Your task to perform on an android device: change the upload size in google photos Image 0: 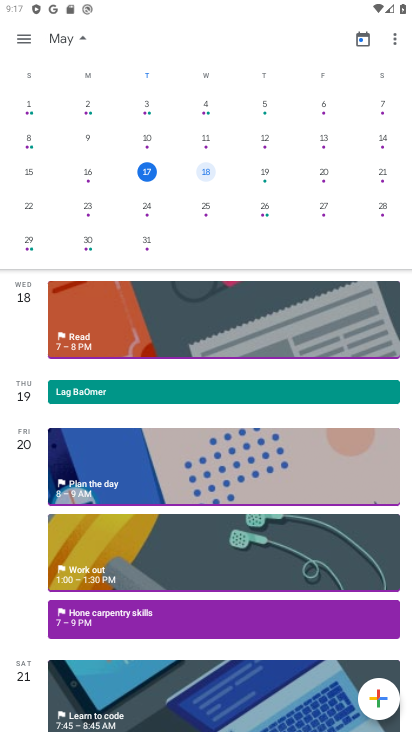
Step 0: press home button
Your task to perform on an android device: change the upload size in google photos Image 1: 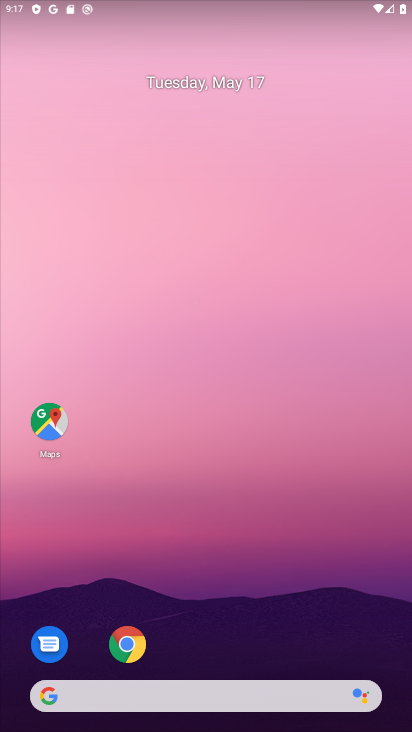
Step 1: drag from (221, 617) to (219, 4)
Your task to perform on an android device: change the upload size in google photos Image 2: 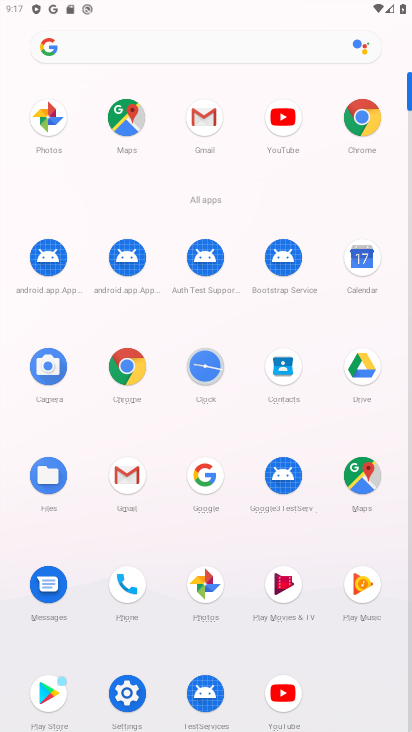
Step 2: click (38, 120)
Your task to perform on an android device: change the upload size in google photos Image 3: 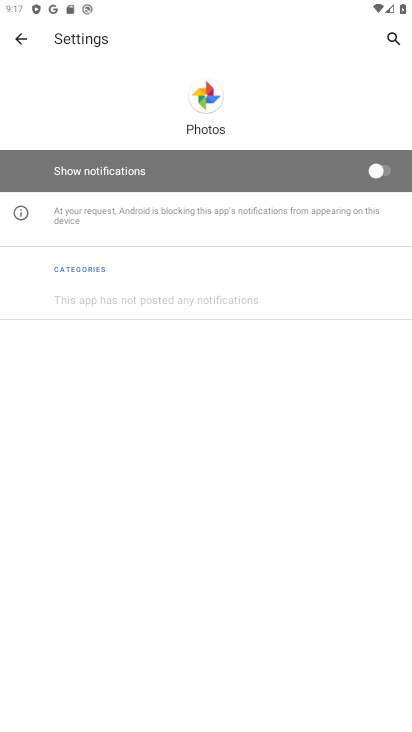
Step 3: click (48, 46)
Your task to perform on an android device: change the upload size in google photos Image 4: 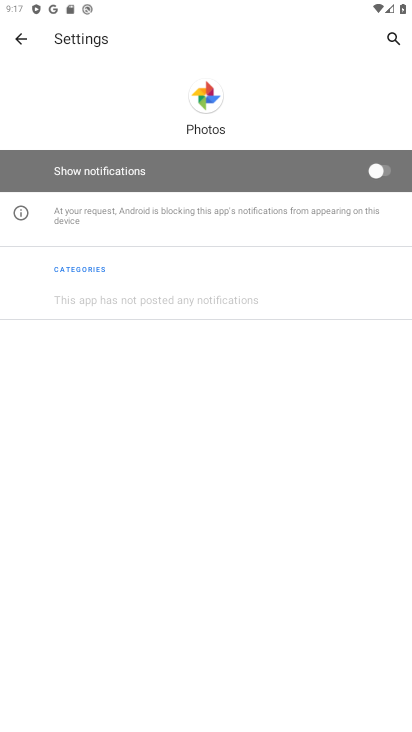
Step 4: click (26, 37)
Your task to perform on an android device: change the upload size in google photos Image 5: 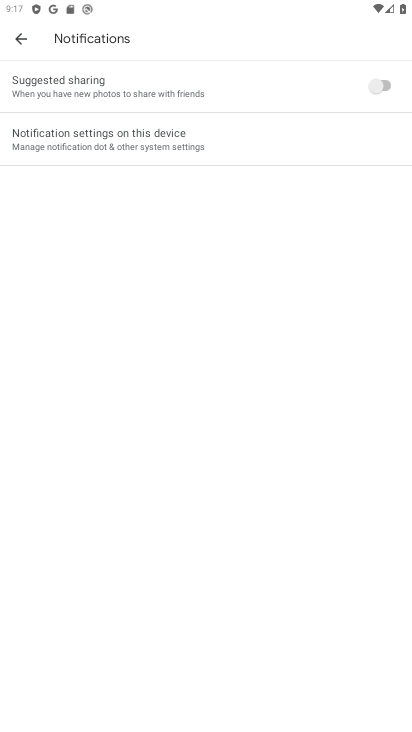
Step 5: click (26, 37)
Your task to perform on an android device: change the upload size in google photos Image 6: 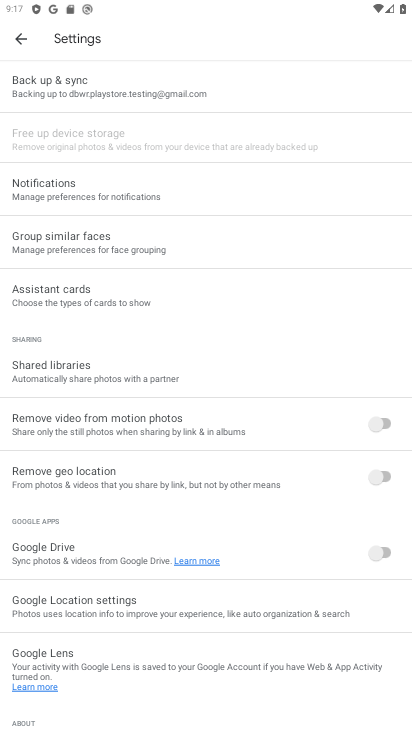
Step 6: click (25, 45)
Your task to perform on an android device: change the upload size in google photos Image 7: 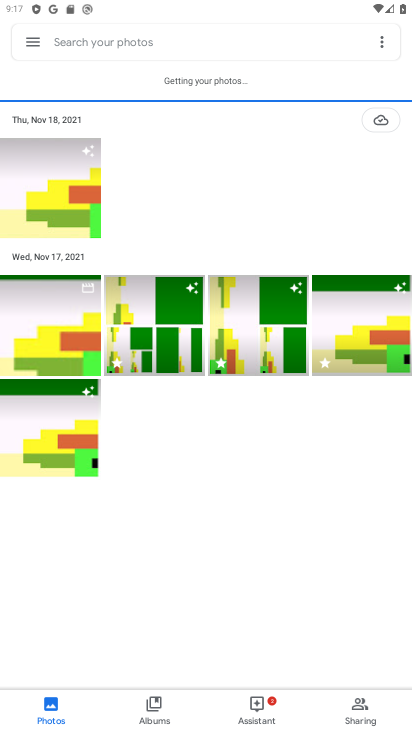
Step 7: click (25, 45)
Your task to perform on an android device: change the upload size in google photos Image 8: 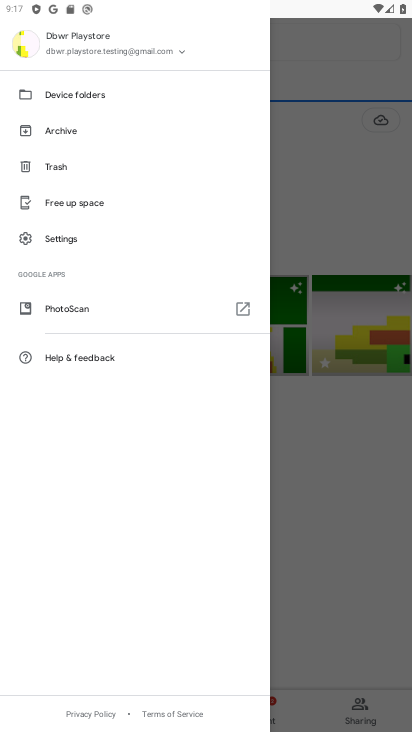
Step 8: click (90, 246)
Your task to perform on an android device: change the upload size in google photos Image 9: 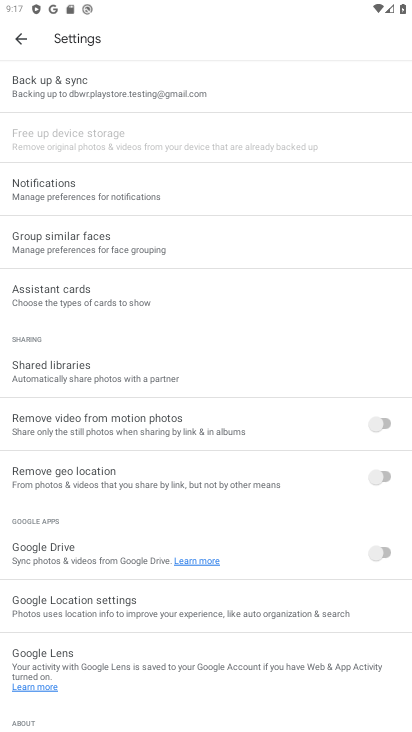
Step 9: click (115, 71)
Your task to perform on an android device: change the upload size in google photos Image 10: 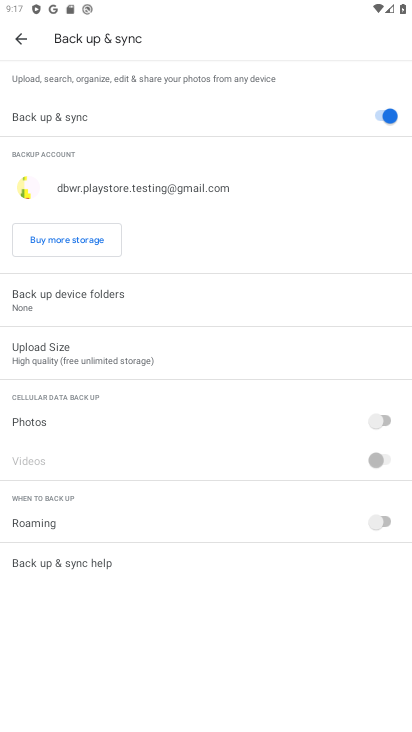
Step 10: click (124, 356)
Your task to perform on an android device: change the upload size in google photos Image 11: 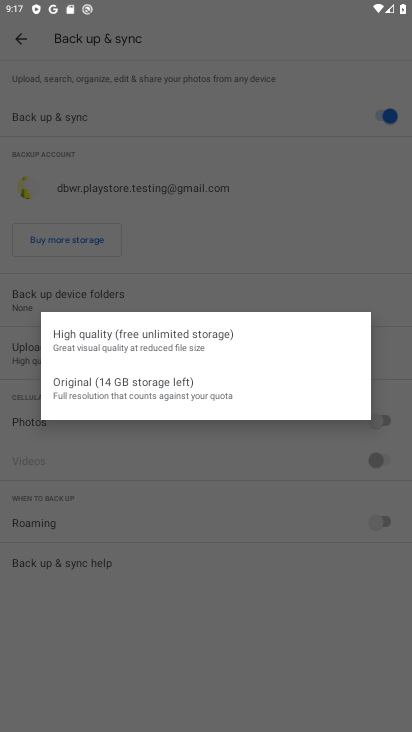
Step 11: click (141, 399)
Your task to perform on an android device: change the upload size in google photos Image 12: 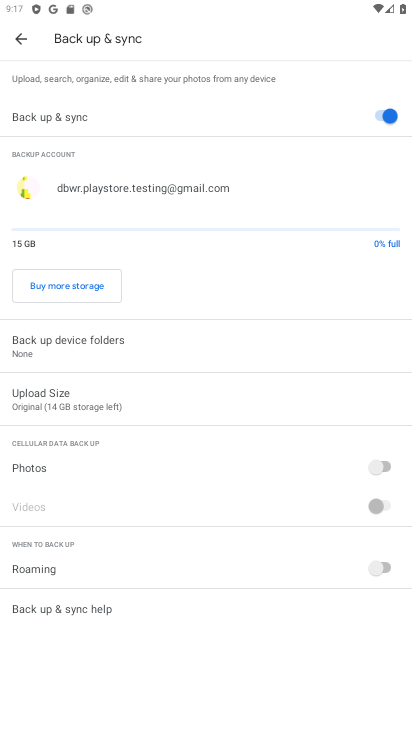
Step 12: task complete